Your task to perform on an android device: Is it going to rain tomorrow? Image 0: 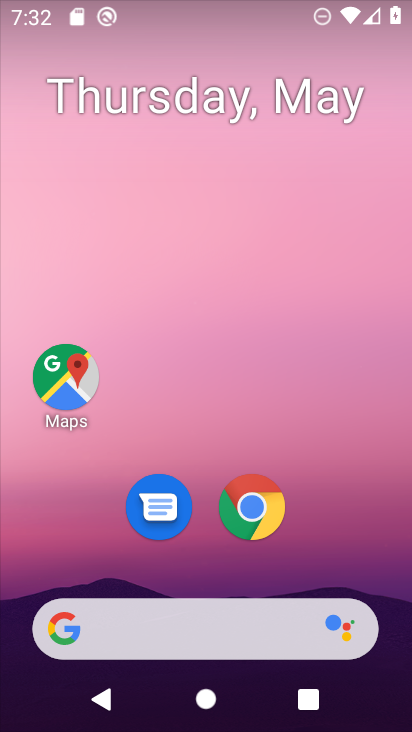
Step 0: click (85, 631)
Your task to perform on an android device: Is it going to rain tomorrow? Image 1: 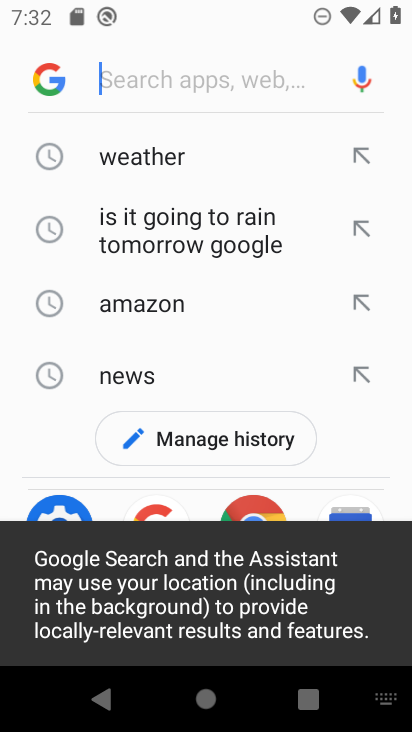
Step 1: click (59, 87)
Your task to perform on an android device: Is it going to rain tomorrow? Image 2: 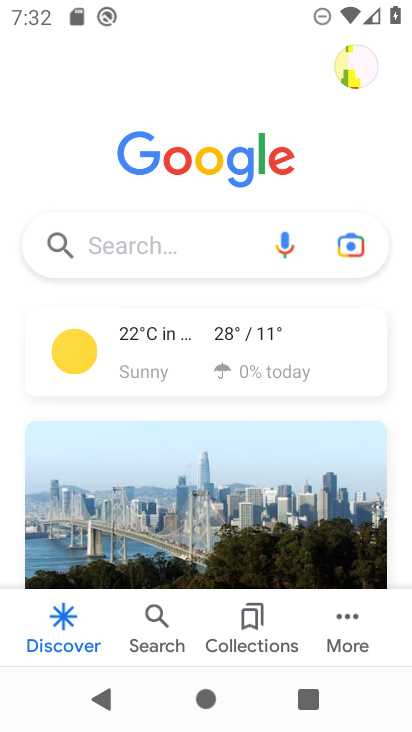
Step 2: click (197, 388)
Your task to perform on an android device: Is it going to rain tomorrow? Image 3: 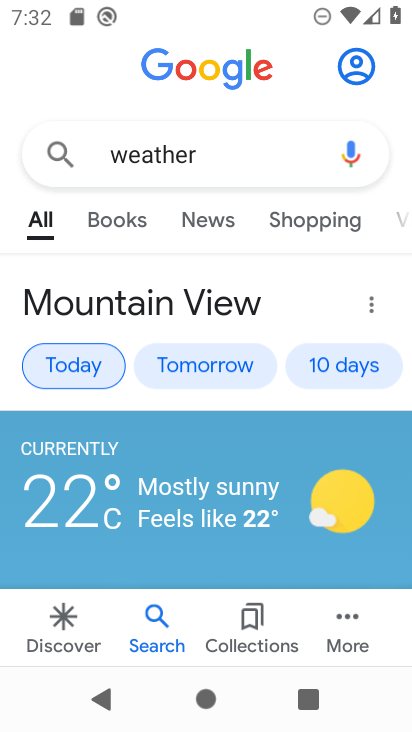
Step 3: click (204, 369)
Your task to perform on an android device: Is it going to rain tomorrow? Image 4: 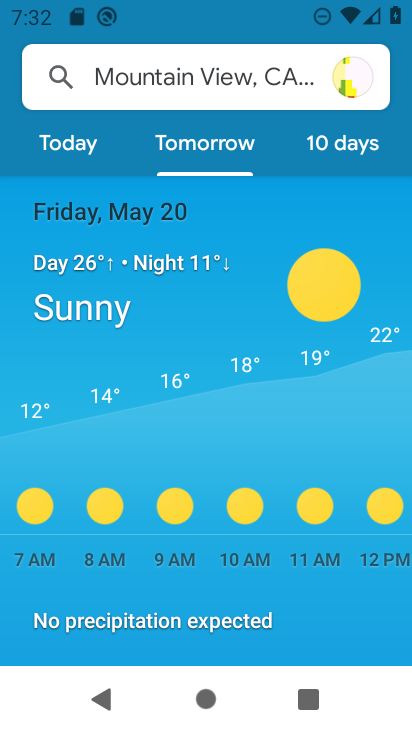
Step 4: task complete